Your task to perform on an android device: change notification settings in the gmail app Image 0: 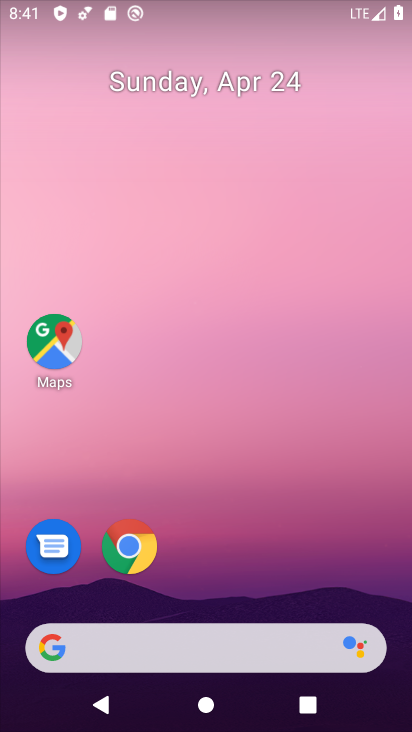
Step 0: drag from (303, 565) to (205, 59)
Your task to perform on an android device: change notification settings in the gmail app Image 1: 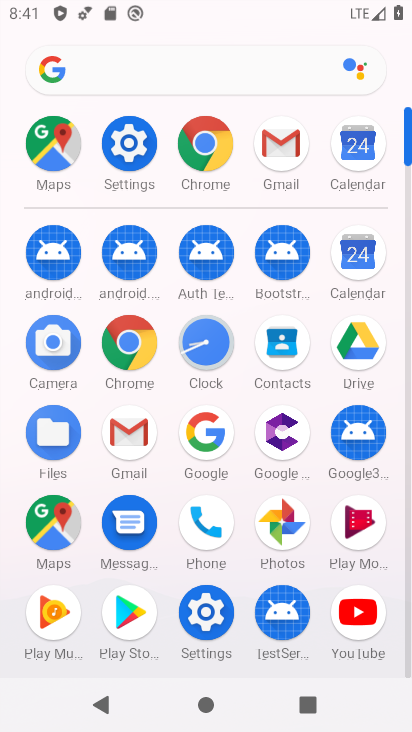
Step 1: click (140, 150)
Your task to perform on an android device: change notification settings in the gmail app Image 2: 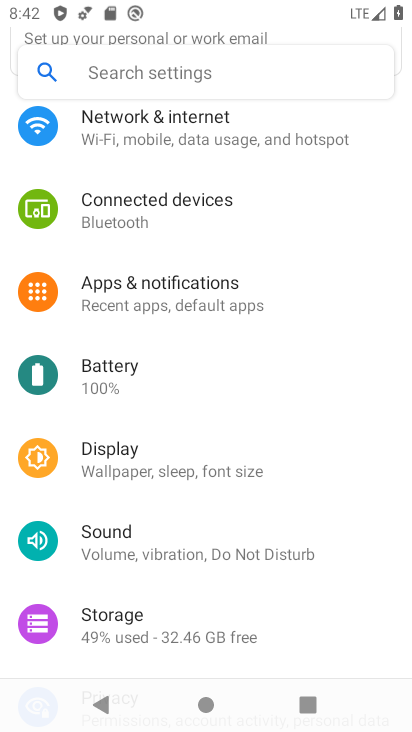
Step 2: click (208, 699)
Your task to perform on an android device: change notification settings in the gmail app Image 3: 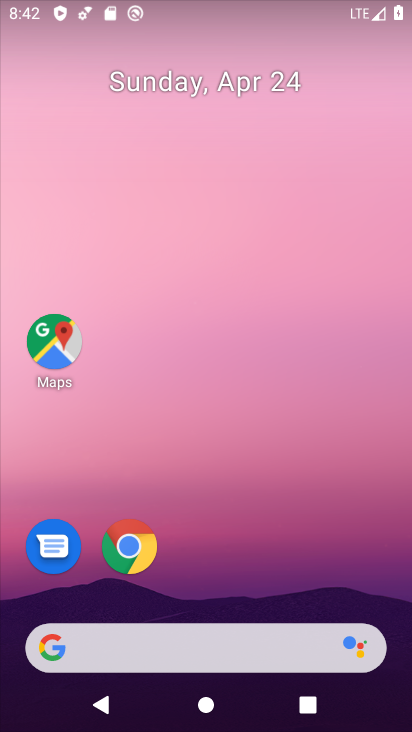
Step 3: drag from (231, 543) to (221, 440)
Your task to perform on an android device: change notification settings in the gmail app Image 4: 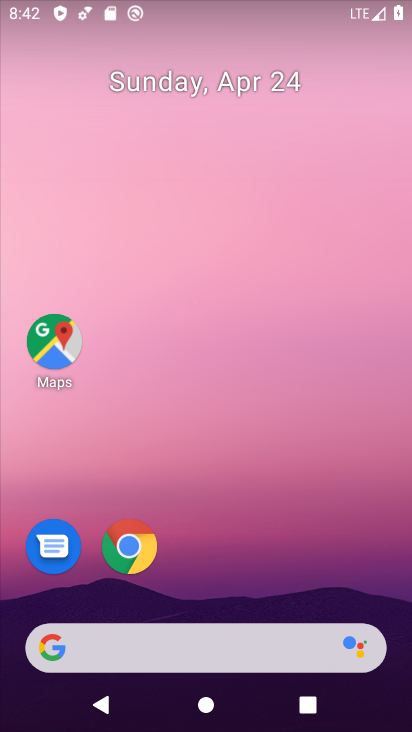
Step 4: drag from (294, 435) to (306, 55)
Your task to perform on an android device: change notification settings in the gmail app Image 5: 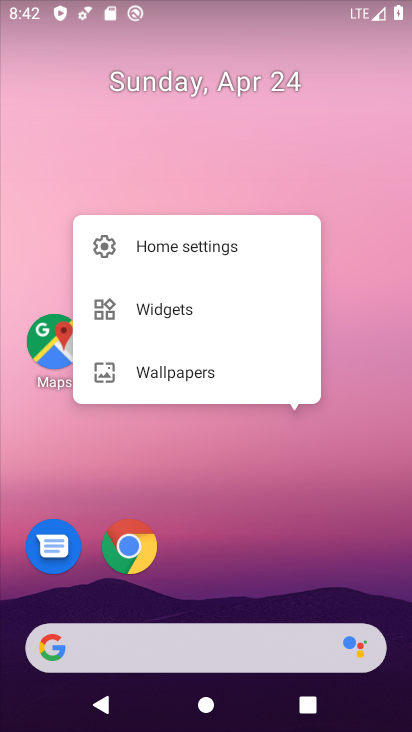
Step 5: click (328, 539)
Your task to perform on an android device: change notification settings in the gmail app Image 6: 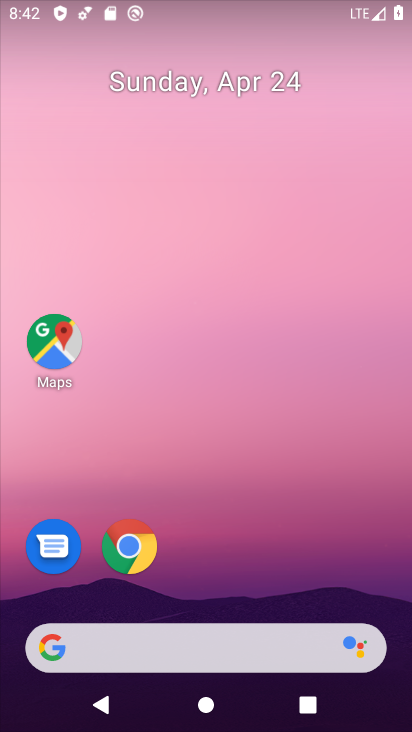
Step 6: drag from (328, 539) to (279, 87)
Your task to perform on an android device: change notification settings in the gmail app Image 7: 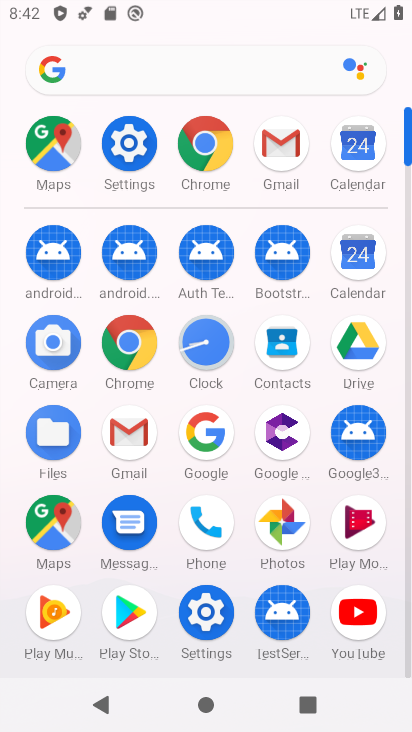
Step 7: click (270, 160)
Your task to perform on an android device: change notification settings in the gmail app Image 8: 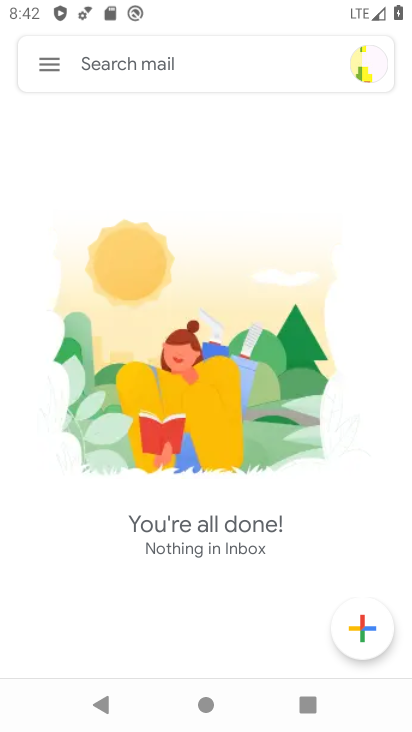
Step 8: click (40, 74)
Your task to perform on an android device: change notification settings in the gmail app Image 9: 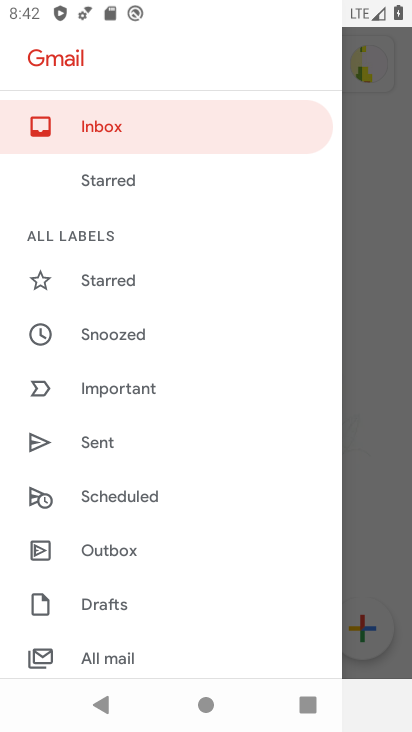
Step 9: drag from (141, 624) to (68, 281)
Your task to perform on an android device: change notification settings in the gmail app Image 10: 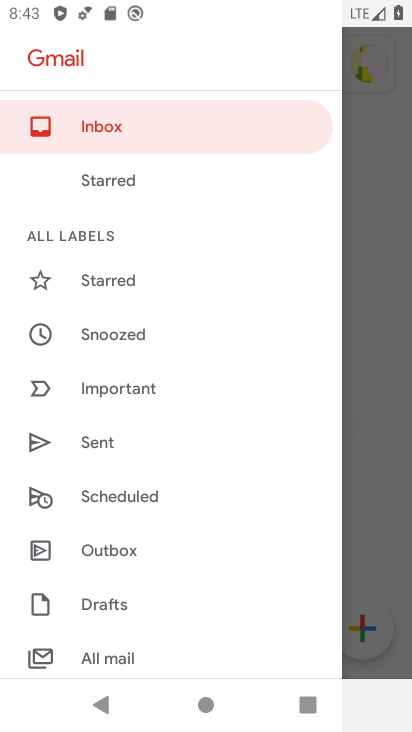
Step 10: drag from (153, 576) to (153, 92)
Your task to perform on an android device: change notification settings in the gmail app Image 11: 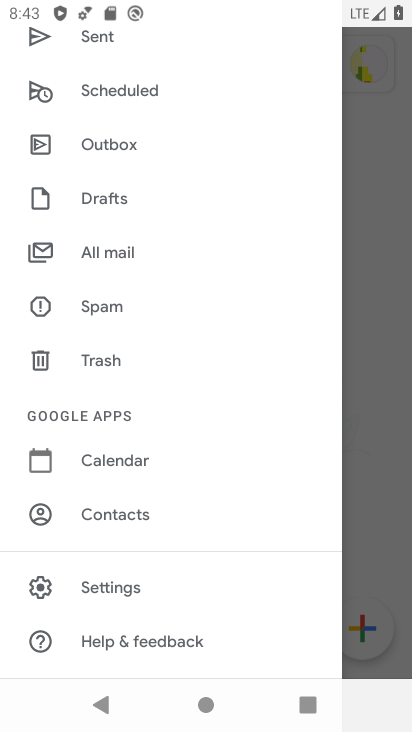
Step 11: click (120, 577)
Your task to perform on an android device: change notification settings in the gmail app Image 12: 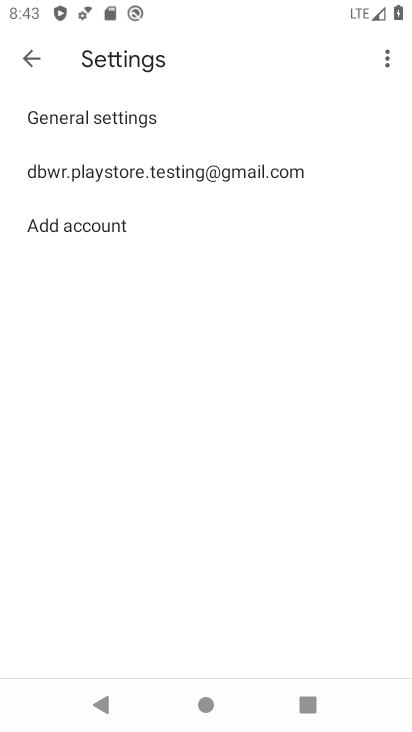
Step 12: click (70, 112)
Your task to perform on an android device: change notification settings in the gmail app Image 13: 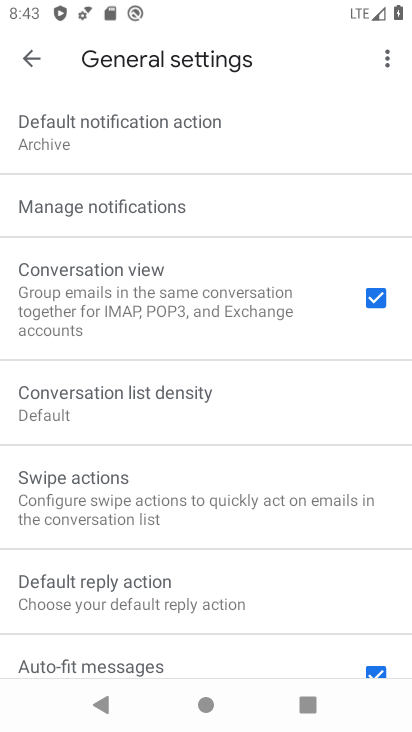
Step 13: click (99, 200)
Your task to perform on an android device: change notification settings in the gmail app Image 14: 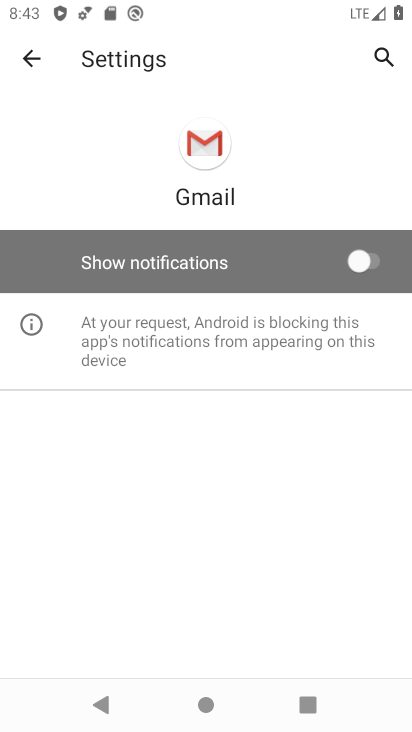
Step 14: click (293, 255)
Your task to perform on an android device: change notification settings in the gmail app Image 15: 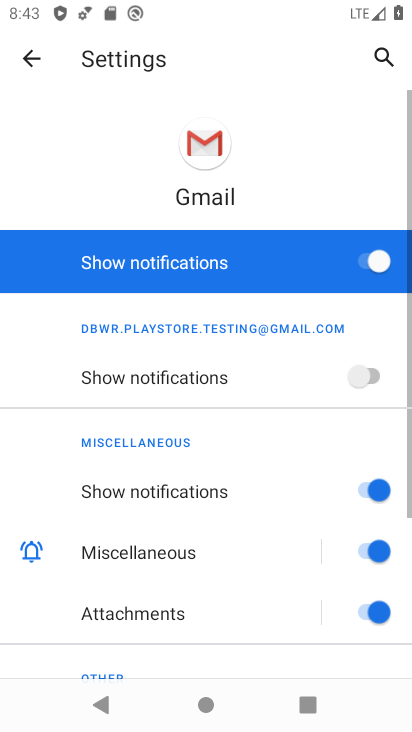
Step 15: task complete